Your task to perform on an android device: Turn on the flashlight Image 0: 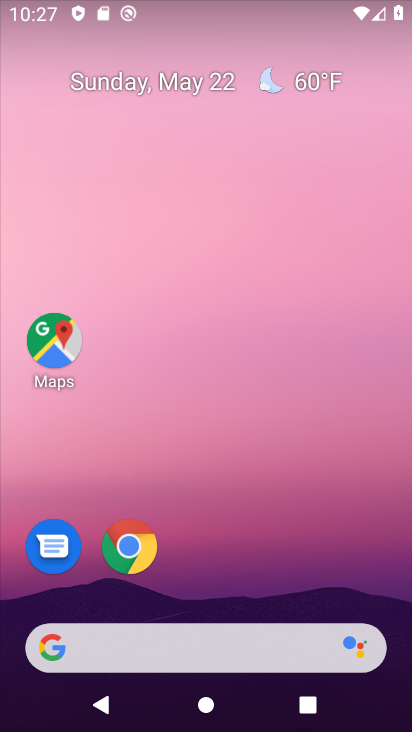
Step 0: drag from (231, 716) to (227, 179)
Your task to perform on an android device: Turn on the flashlight Image 1: 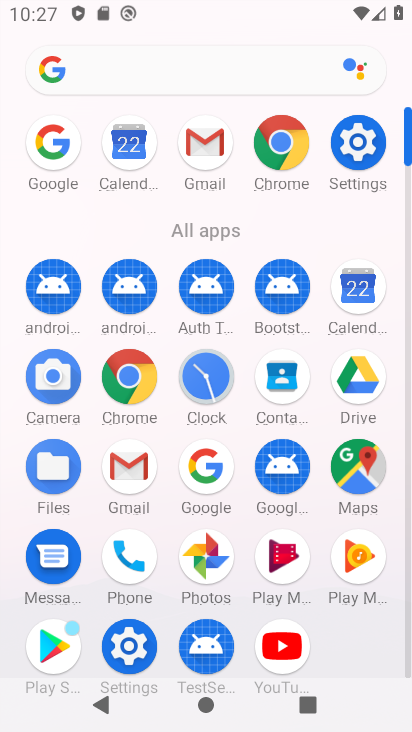
Step 1: click (363, 144)
Your task to perform on an android device: Turn on the flashlight Image 2: 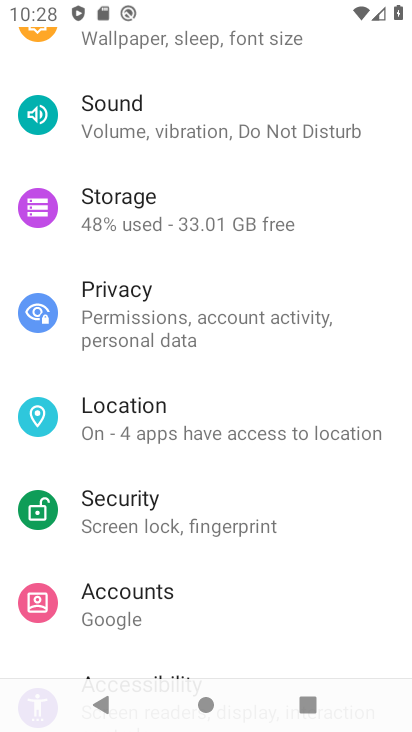
Step 2: task complete